Your task to perform on an android device: turn on data saver in the chrome app Image 0: 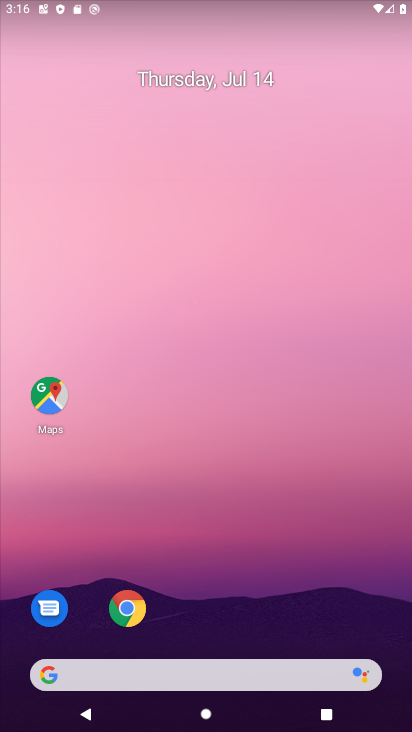
Step 0: click (126, 618)
Your task to perform on an android device: turn on data saver in the chrome app Image 1: 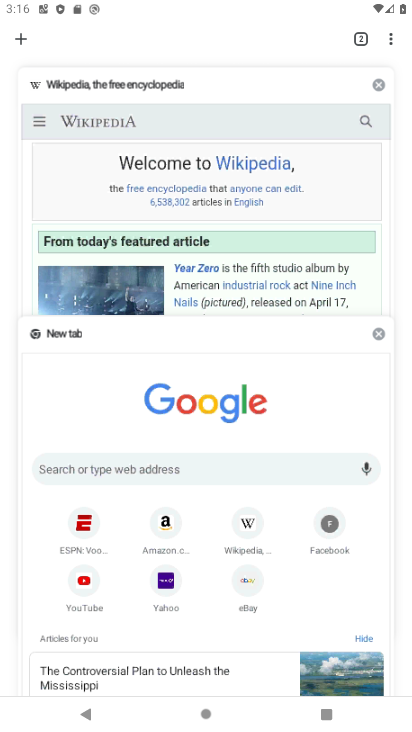
Step 1: click (394, 36)
Your task to perform on an android device: turn on data saver in the chrome app Image 2: 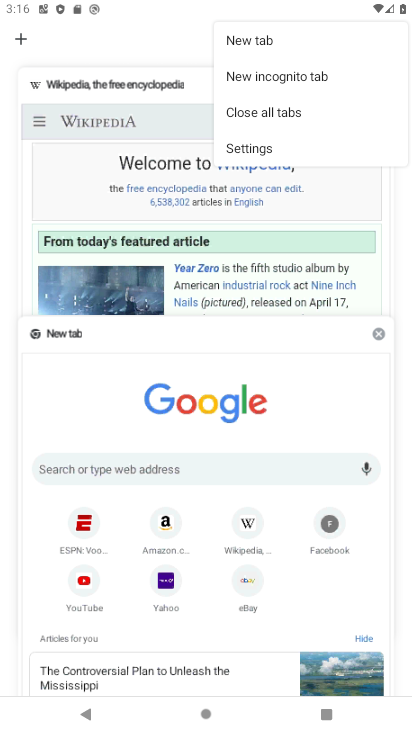
Step 2: click (262, 151)
Your task to perform on an android device: turn on data saver in the chrome app Image 3: 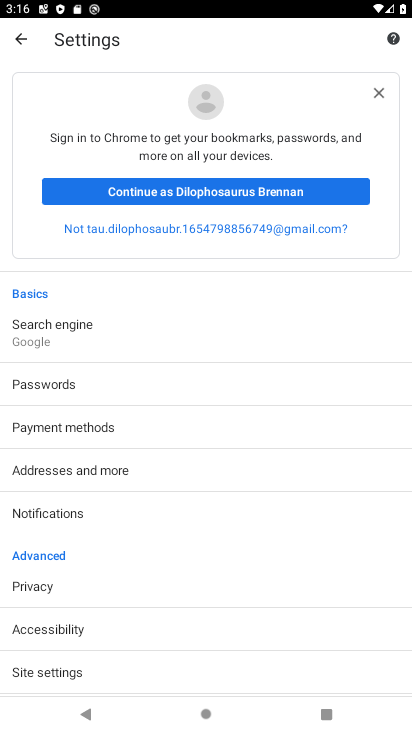
Step 3: drag from (52, 670) to (116, 195)
Your task to perform on an android device: turn on data saver in the chrome app Image 4: 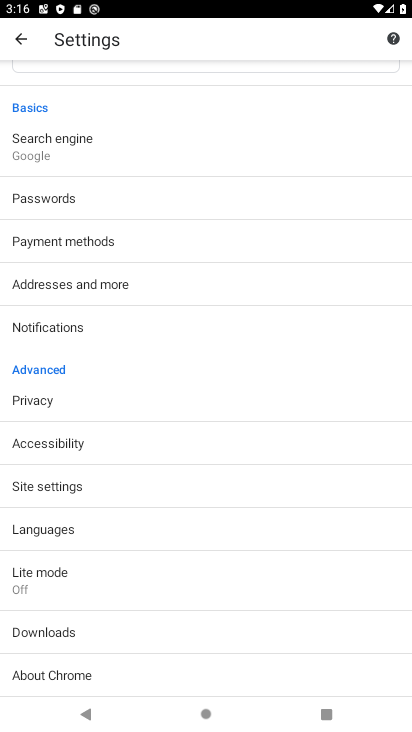
Step 4: click (49, 574)
Your task to perform on an android device: turn on data saver in the chrome app Image 5: 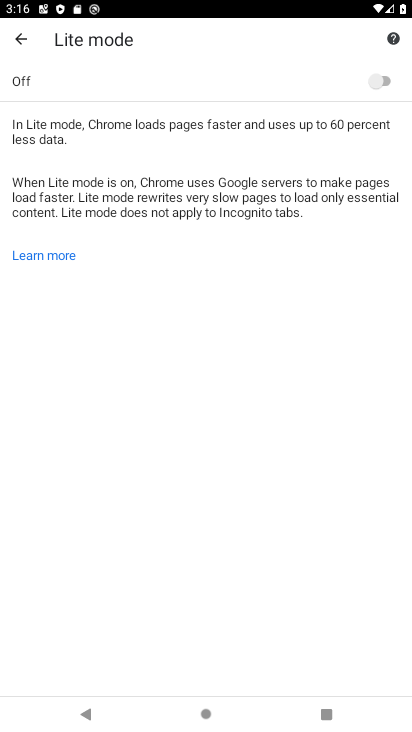
Step 5: click (372, 83)
Your task to perform on an android device: turn on data saver in the chrome app Image 6: 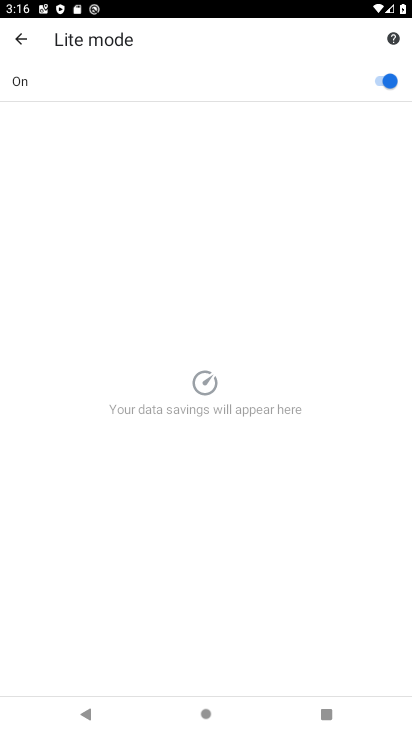
Step 6: task complete